Your task to perform on an android device: Show me recent news Image 0: 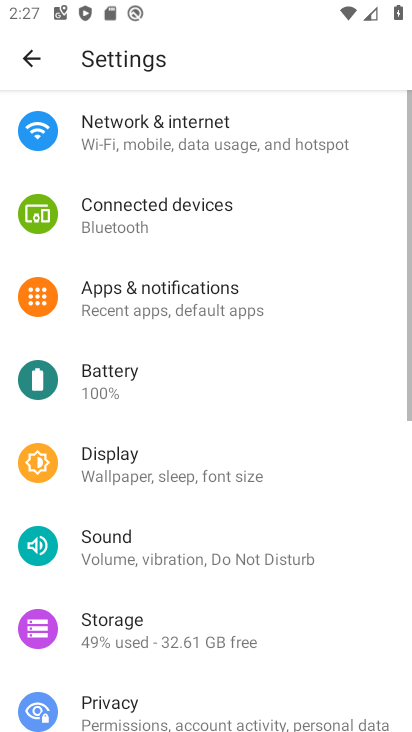
Step 0: press home button
Your task to perform on an android device: Show me recent news Image 1: 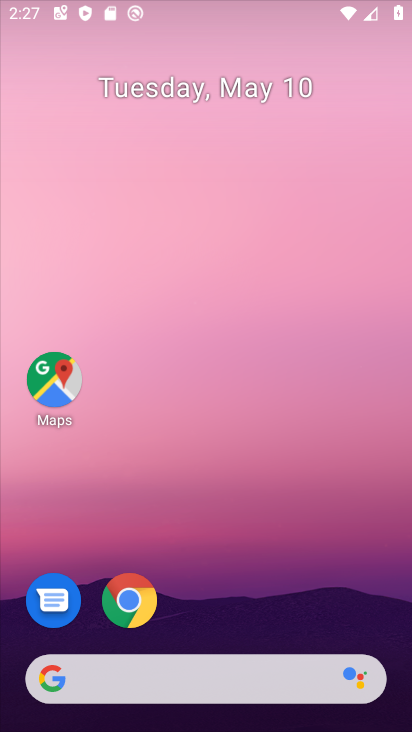
Step 1: drag from (238, 563) to (287, 169)
Your task to perform on an android device: Show me recent news Image 2: 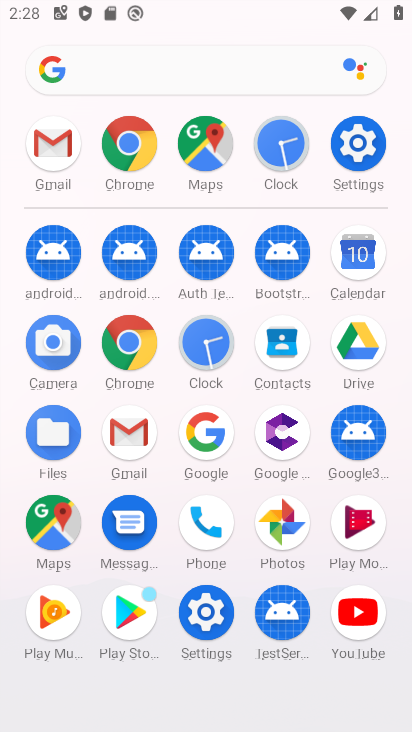
Step 2: click (203, 462)
Your task to perform on an android device: Show me recent news Image 3: 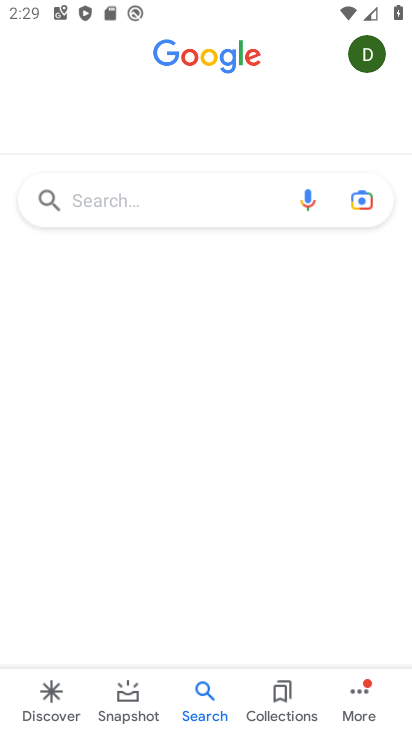
Step 3: click (170, 202)
Your task to perform on an android device: Show me recent news Image 4: 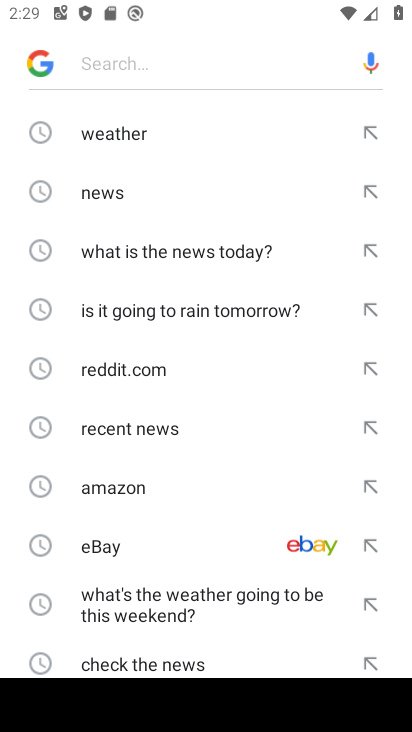
Step 4: click (156, 195)
Your task to perform on an android device: Show me recent news Image 5: 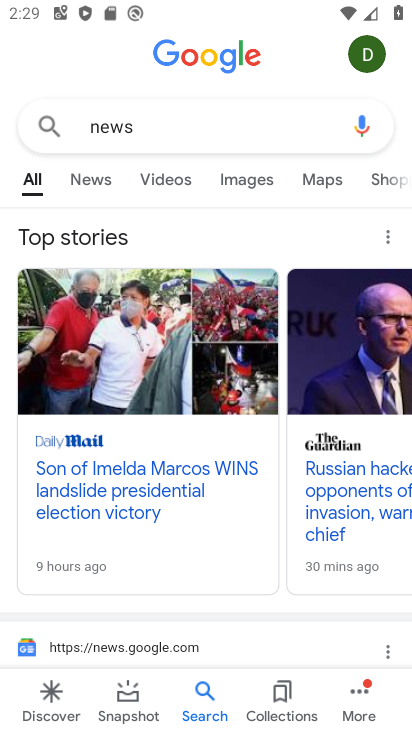
Step 5: click (243, 188)
Your task to perform on an android device: Show me recent news Image 6: 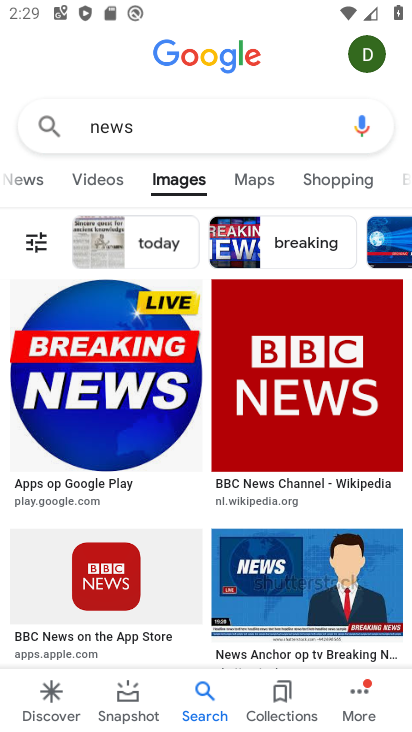
Step 6: click (15, 181)
Your task to perform on an android device: Show me recent news Image 7: 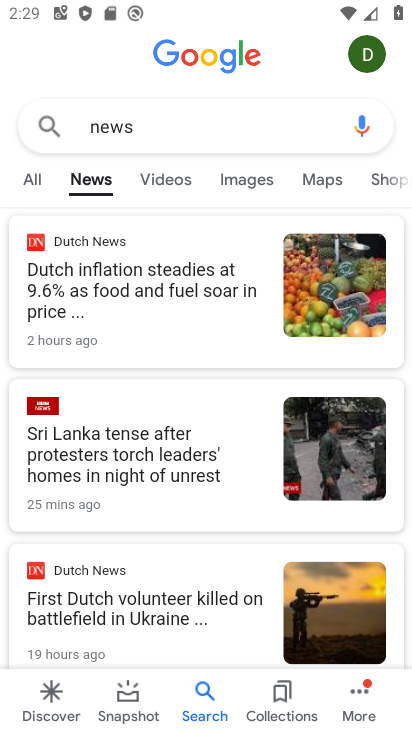
Step 7: task complete